Your task to perform on an android device: Open the calendar app, open the side menu, and click the "Day" option Image 0: 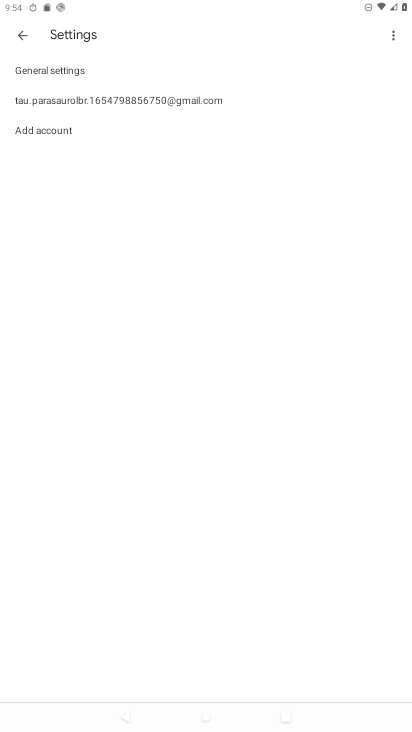
Step 0: press home button
Your task to perform on an android device: Open the calendar app, open the side menu, and click the "Day" option Image 1: 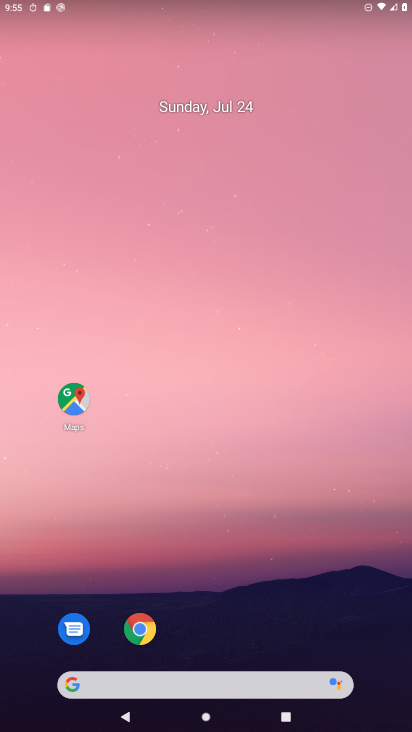
Step 1: drag from (191, 546) to (274, 98)
Your task to perform on an android device: Open the calendar app, open the side menu, and click the "Day" option Image 2: 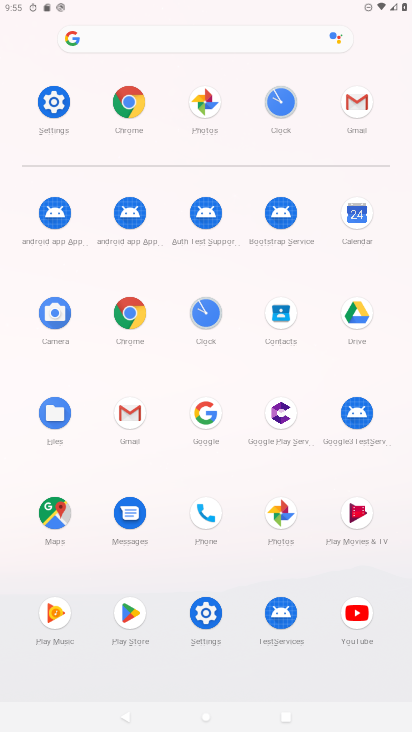
Step 2: click (357, 225)
Your task to perform on an android device: Open the calendar app, open the side menu, and click the "Day" option Image 3: 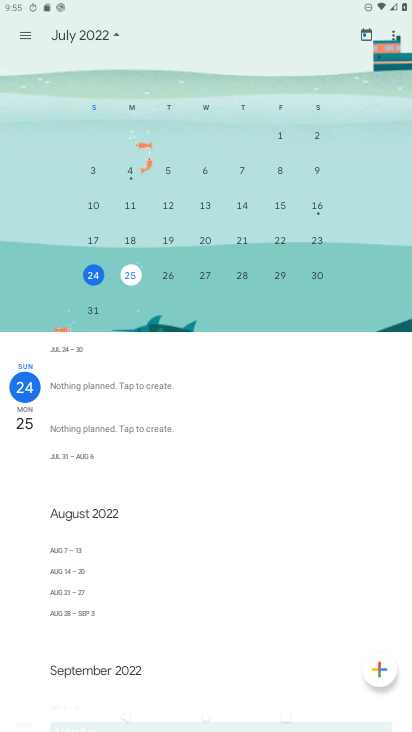
Step 3: click (25, 34)
Your task to perform on an android device: Open the calendar app, open the side menu, and click the "Day" option Image 4: 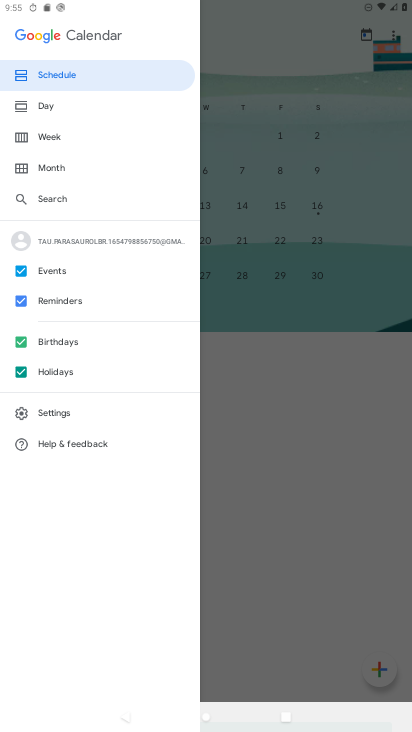
Step 4: click (69, 109)
Your task to perform on an android device: Open the calendar app, open the side menu, and click the "Day" option Image 5: 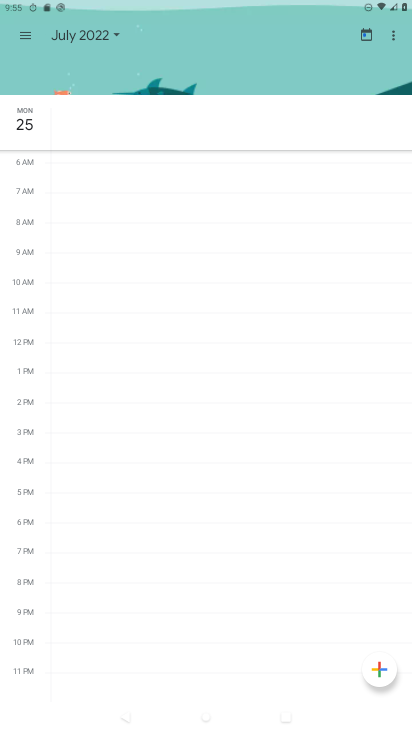
Step 5: task complete